Your task to perform on an android device: delete location history Image 0: 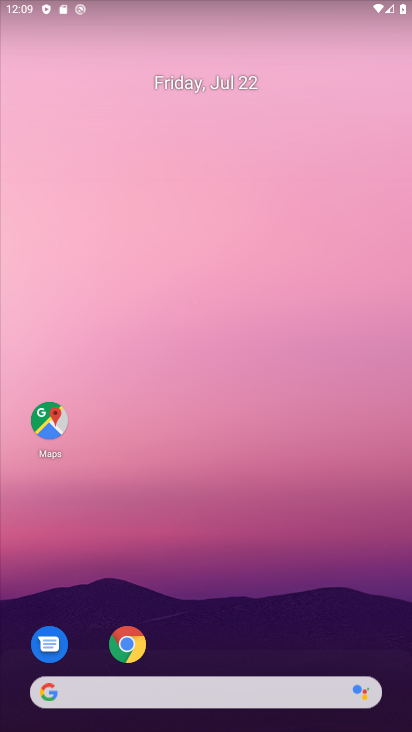
Step 0: click (290, 255)
Your task to perform on an android device: delete location history Image 1: 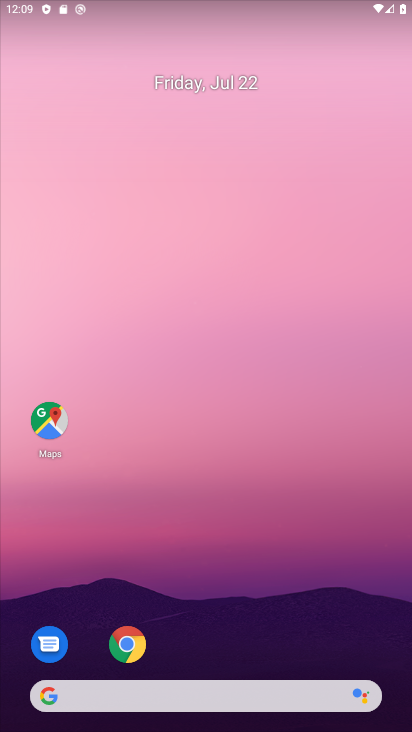
Step 1: drag from (185, 634) to (337, 243)
Your task to perform on an android device: delete location history Image 2: 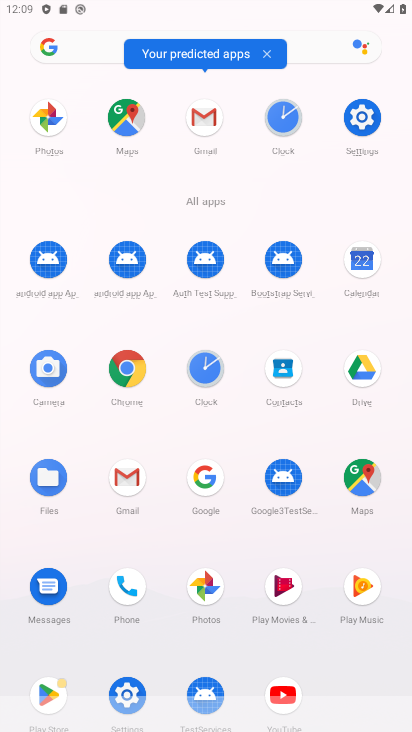
Step 2: click (355, 117)
Your task to perform on an android device: delete location history Image 3: 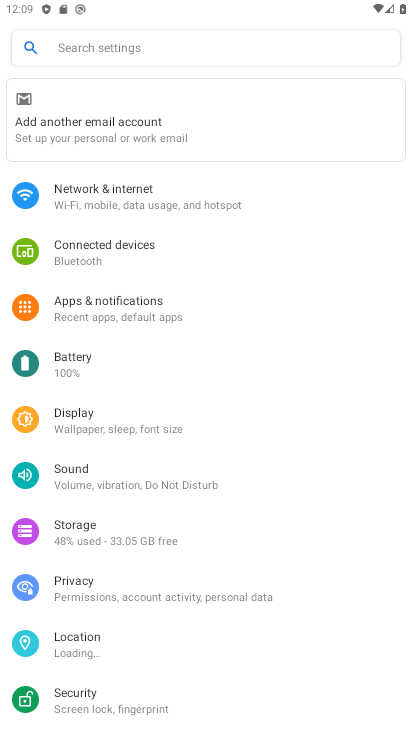
Step 3: click (109, 636)
Your task to perform on an android device: delete location history Image 4: 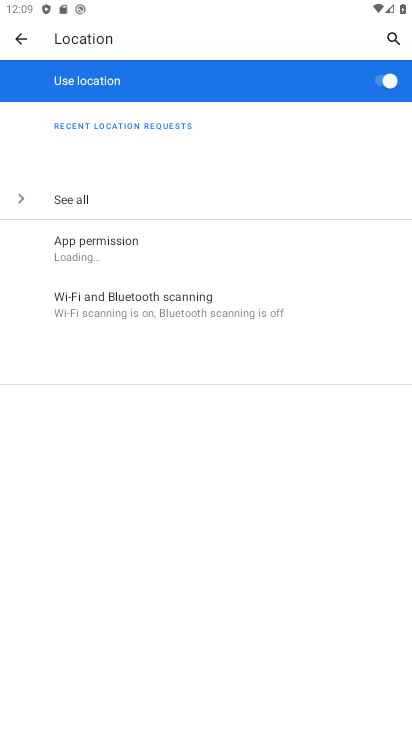
Step 4: drag from (201, 591) to (303, 121)
Your task to perform on an android device: delete location history Image 5: 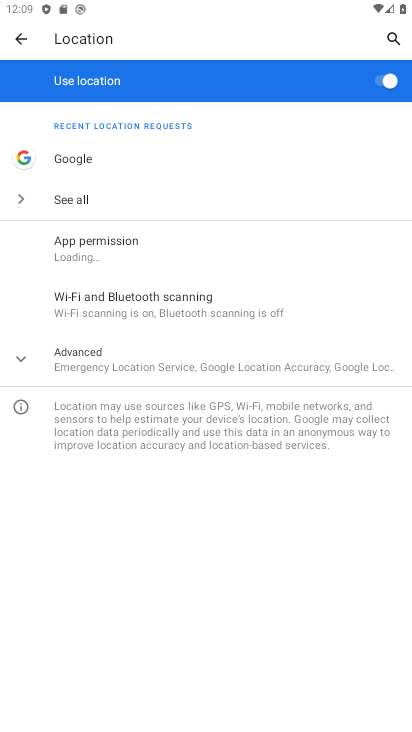
Step 5: click (106, 369)
Your task to perform on an android device: delete location history Image 6: 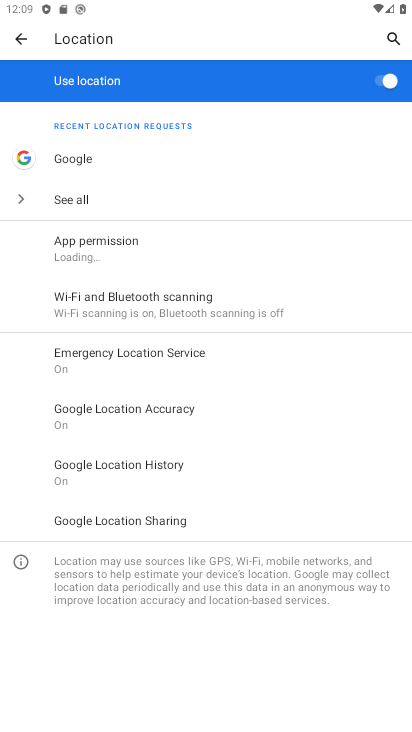
Step 6: click (149, 459)
Your task to perform on an android device: delete location history Image 7: 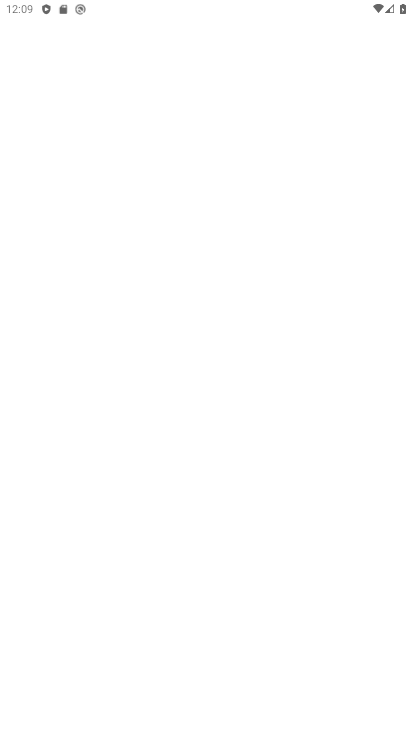
Step 7: drag from (207, 548) to (219, 90)
Your task to perform on an android device: delete location history Image 8: 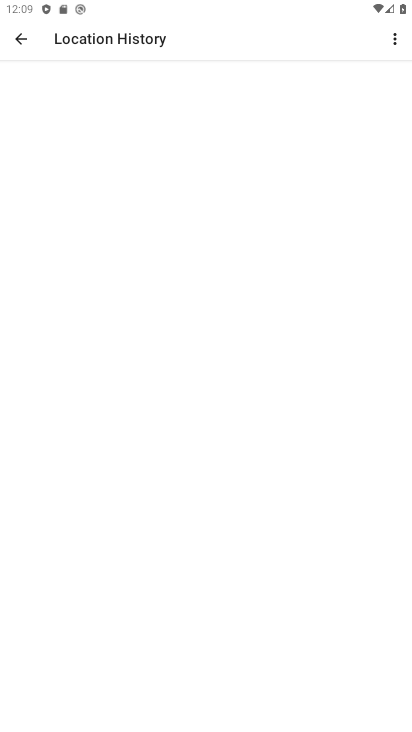
Step 8: drag from (228, 434) to (285, 141)
Your task to perform on an android device: delete location history Image 9: 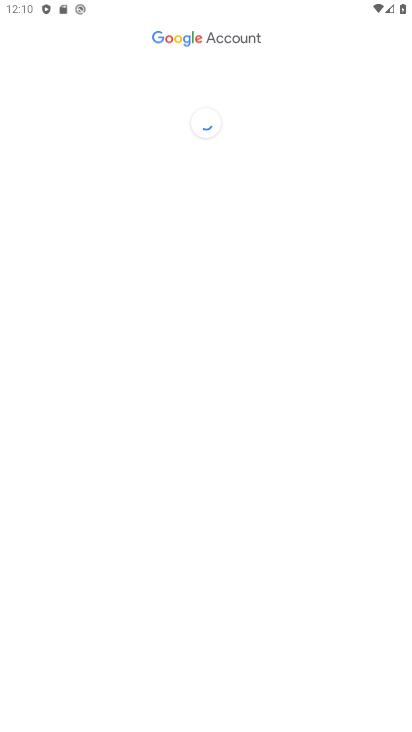
Step 9: drag from (170, 583) to (345, 100)
Your task to perform on an android device: delete location history Image 10: 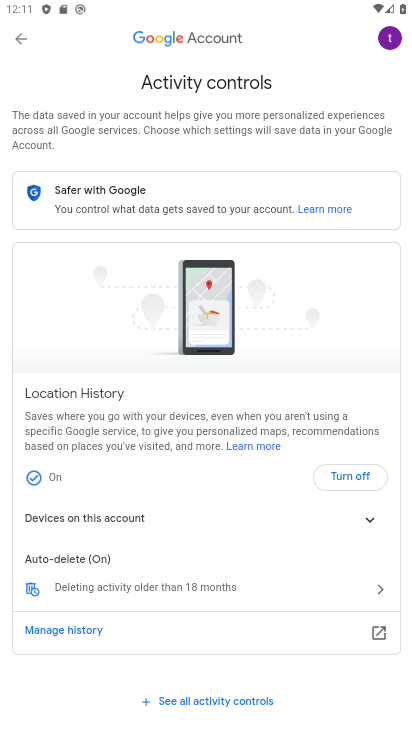
Step 10: drag from (209, 579) to (212, 268)
Your task to perform on an android device: delete location history Image 11: 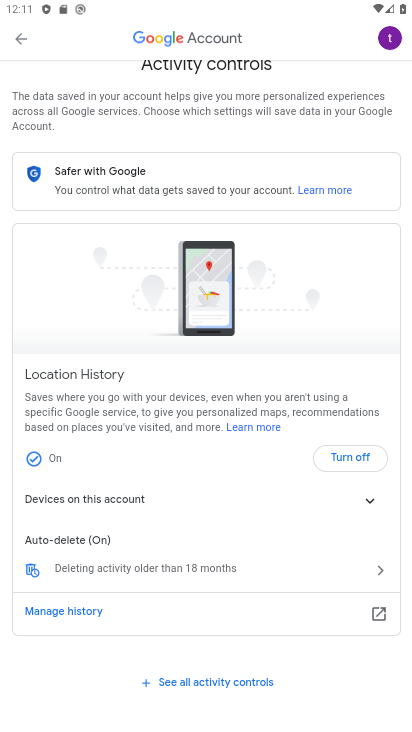
Step 11: click (26, 570)
Your task to perform on an android device: delete location history Image 12: 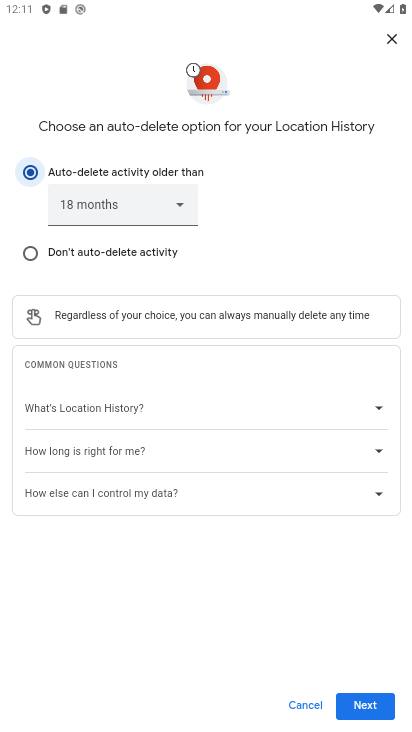
Step 12: click (338, 705)
Your task to perform on an android device: delete location history Image 13: 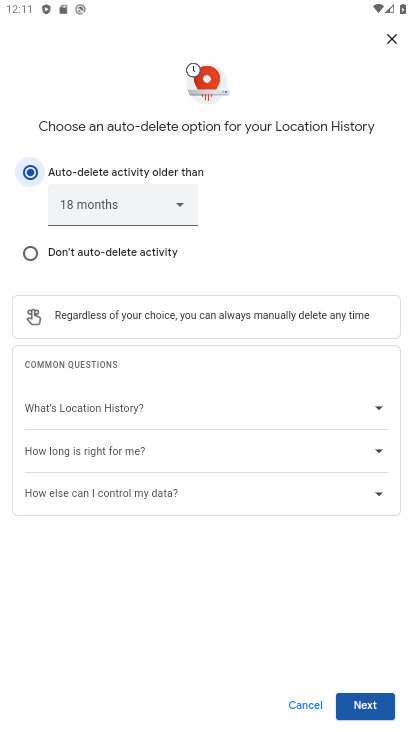
Step 13: click (360, 710)
Your task to perform on an android device: delete location history Image 14: 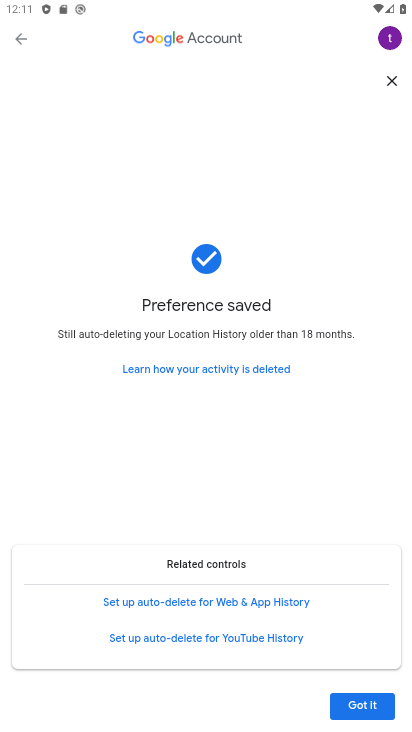
Step 14: click (365, 712)
Your task to perform on an android device: delete location history Image 15: 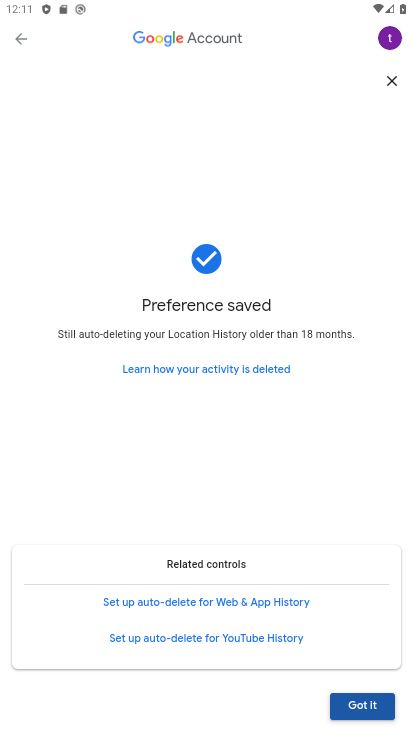
Step 15: task complete